Your task to perform on an android device: Open the map Image 0: 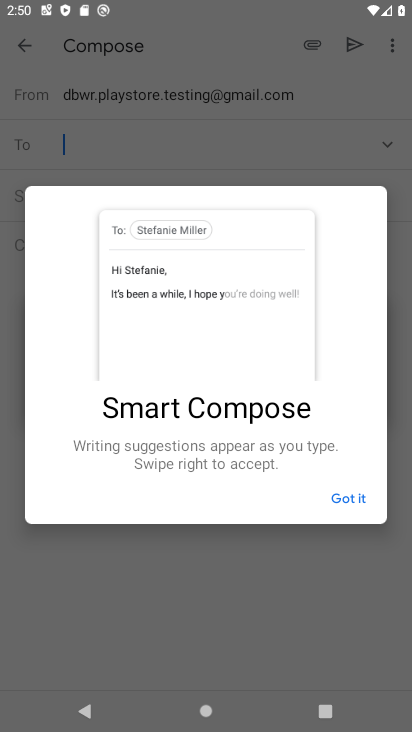
Step 0: press home button
Your task to perform on an android device: Open the map Image 1: 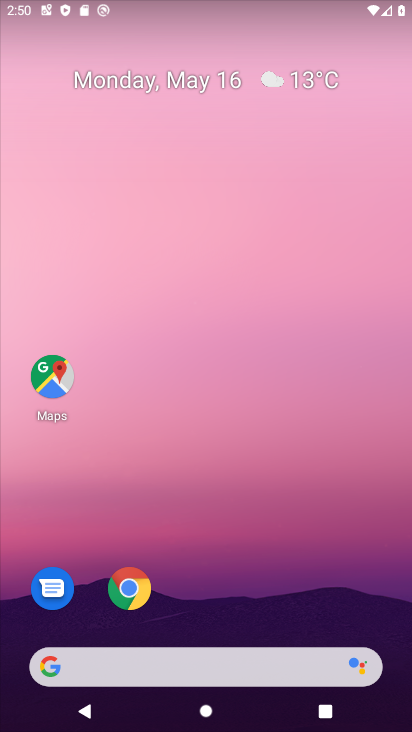
Step 1: drag from (203, 604) to (309, 100)
Your task to perform on an android device: Open the map Image 2: 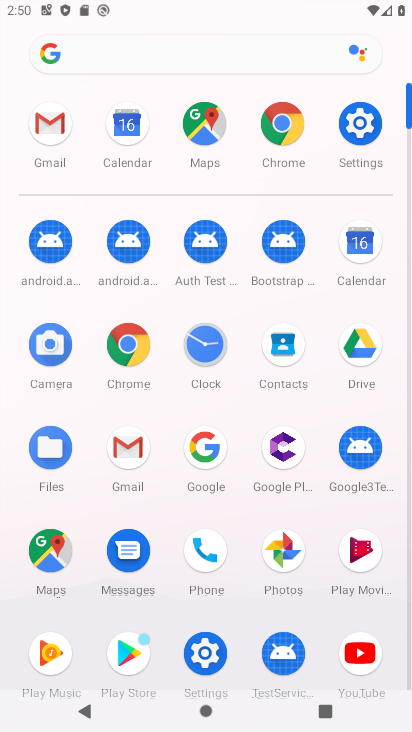
Step 2: click (48, 545)
Your task to perform on an android device: Open the map Image 3: 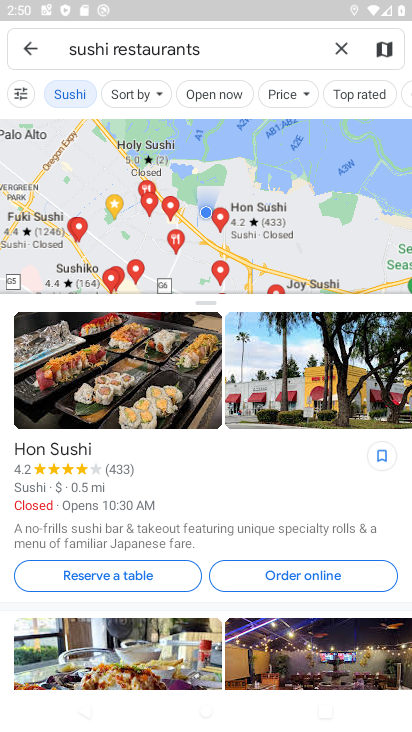
Step 3: task complete